Your task to perform on an android device: Open the stopwatch Image 0: 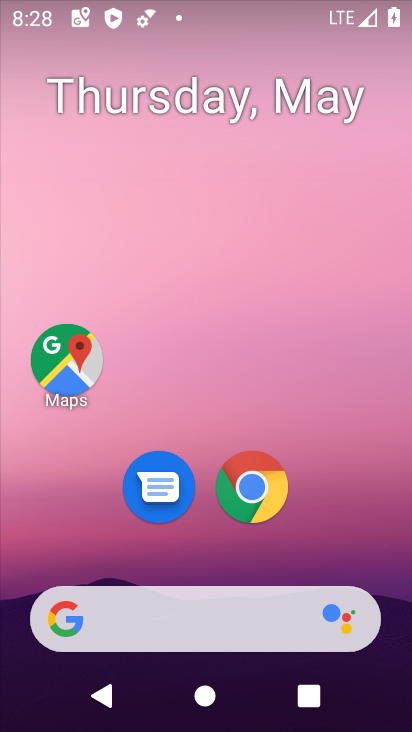
Step 0: drag from (208, 553) to (219, 52)
Your task to perform on an android device: Open the stopwatch Image 1: 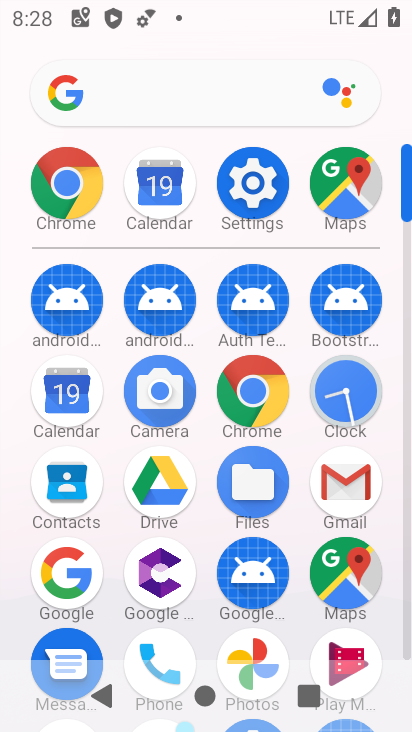
Step 1: click (347, 406)
Your task to perform on an android device: Open the stopwatch Image 2: 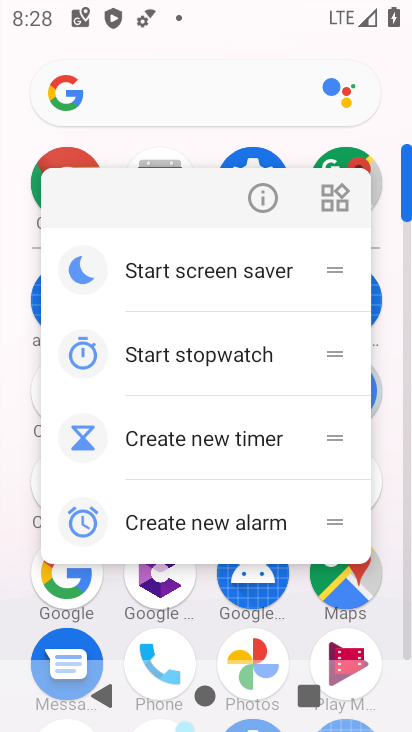
Step 2: click (254, 198)
Your task to perform on an android device: Open the stopwatch Image 3: 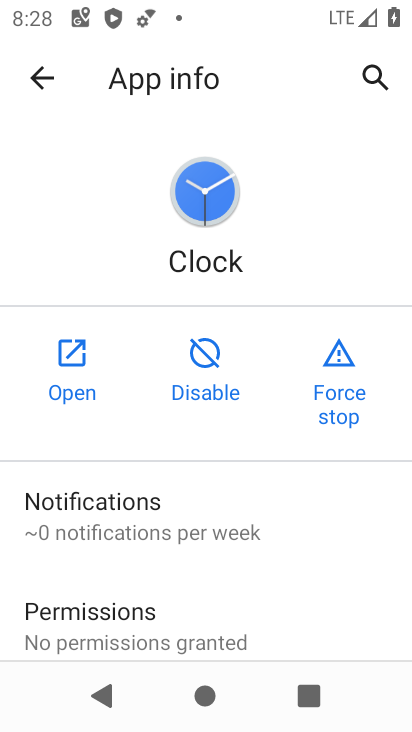
Step 3: click (74, 353)
Your task to perform on an android device: Open the stopwatch Image 4: 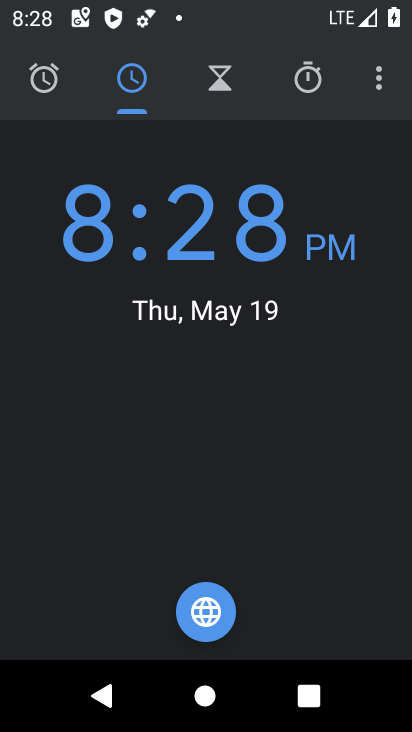
Step 4: click (297, 79)
Your task to perform on an android device: Open the stopwatch Image 5: 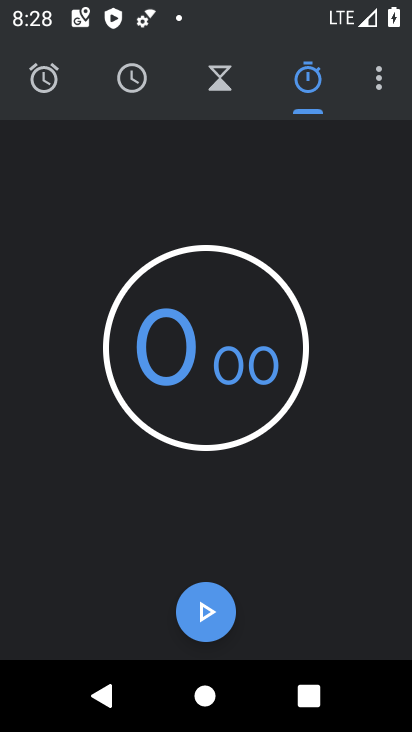
Step 5: click (207, 616)
Your task to perform on an android device: Open the stopwatch Image 6: 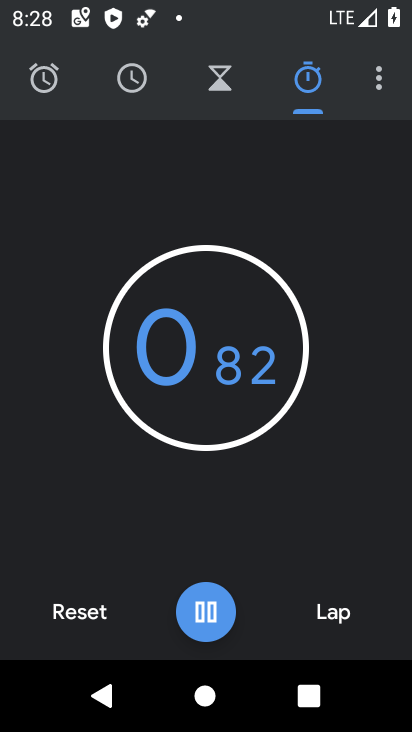
Step 6: task complete